Your task to perform on an android device: Open wifi settings Image 0: 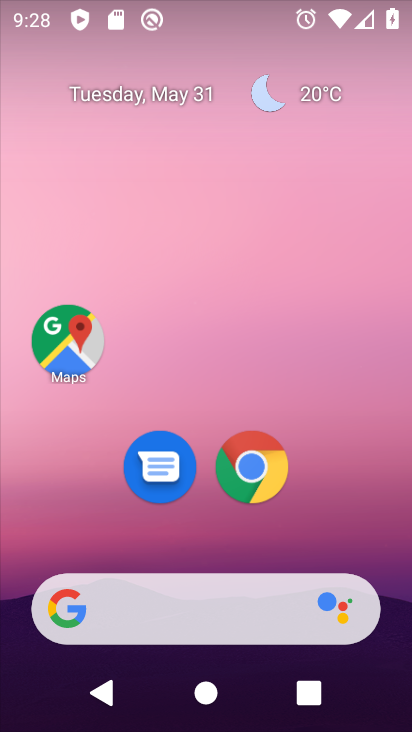
Step 0: click (234, 179)
Your task to perform on an android device: Open wifi settings Image 1: 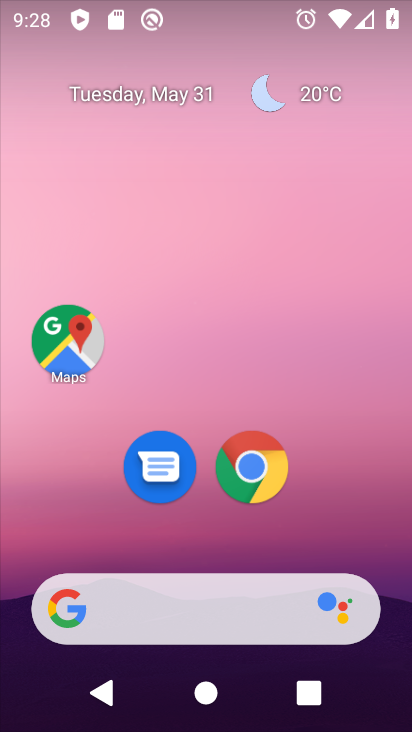
Step 1: click (238, 232)
Your task to perform on an android device: Open wifi settings Image 2: 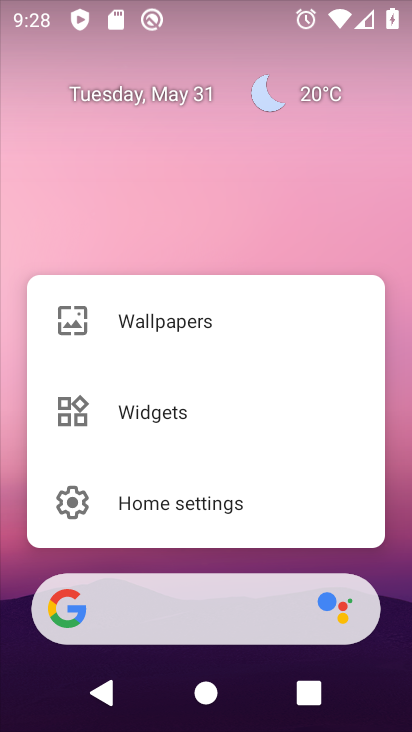
Step 2: click (239, 160)
Your task to perform on an android device: Open wifi settings Image 3: 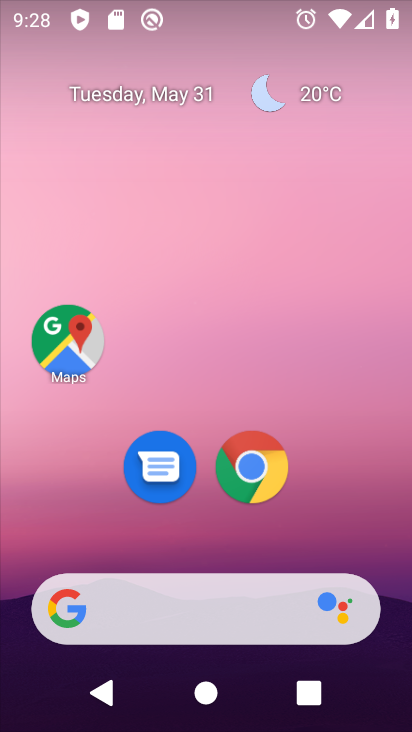
Step 3: press home button
Your task to perform on an android device: Open wifi settings Image 4: 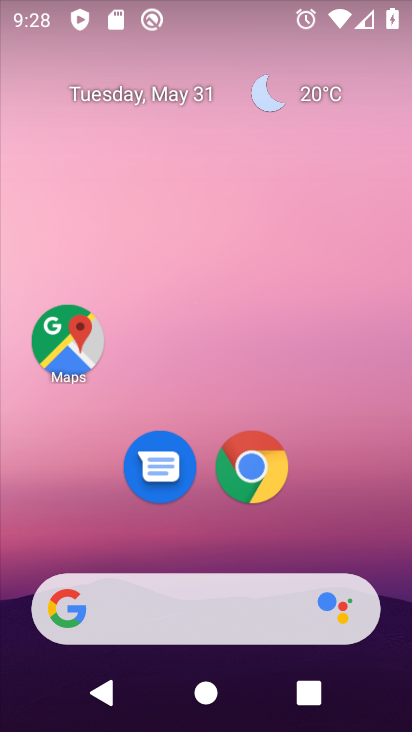
Step 4: click (213, 167)
Your task to perform on an android device: Open wifi settings Image 5: 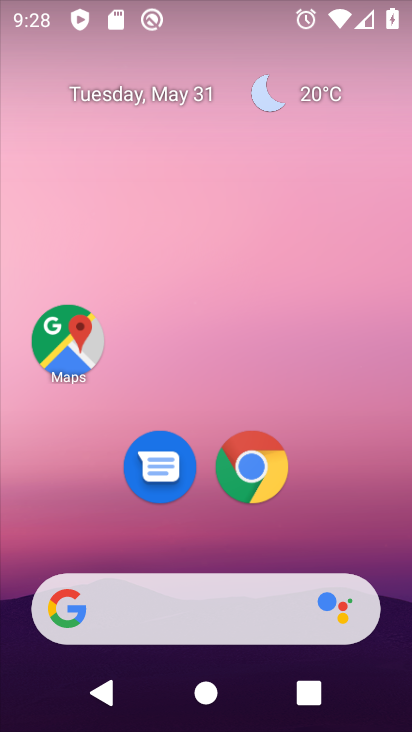
Step 5: drag from (213, 530) to (258, 159)
Your task to perform on an android device: Open wifi settings Image 6: 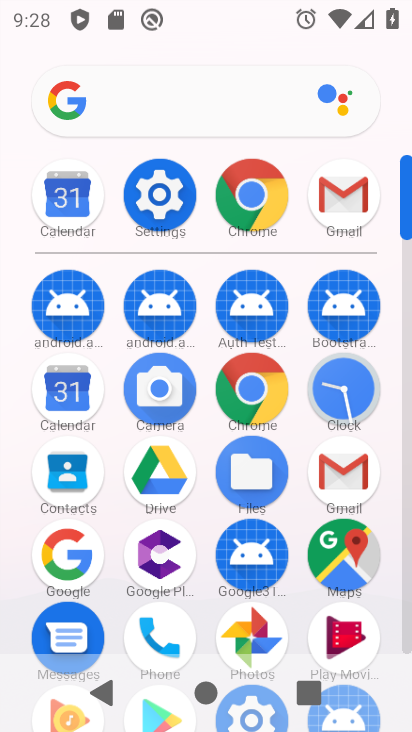
Step 6: click (173, 198)
Your task to perform on an android device: Open wifi settings Image 7: 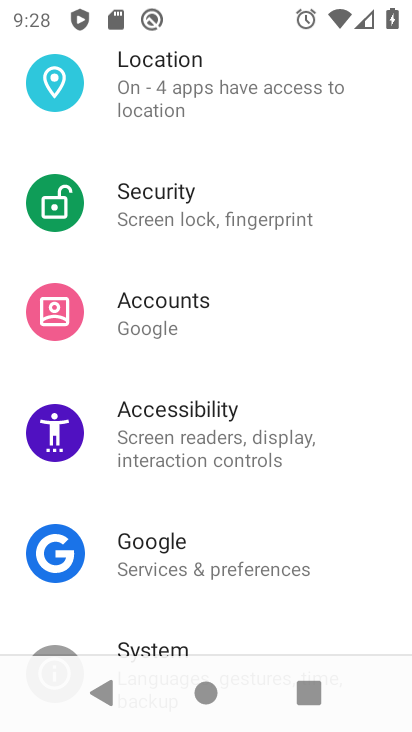
Step 7: drag from (210, 191) to (306, 648)
Your task to perform on an android device: Open wifi settings Image 8: 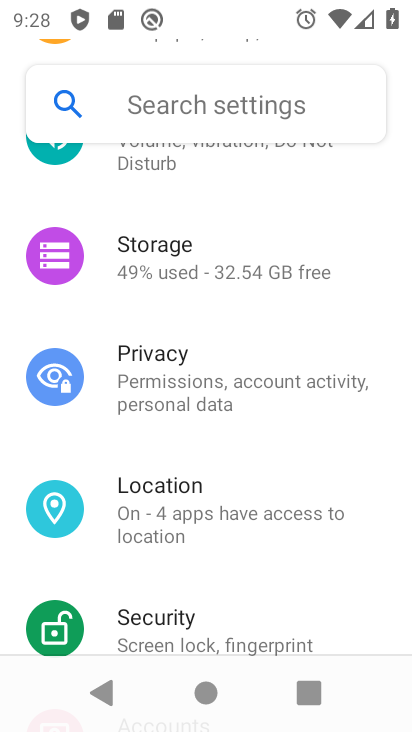
Step 8: drag from (231, 255) to (304, 722)
Your task to perform on an android device: Open wifi settings Image 9: 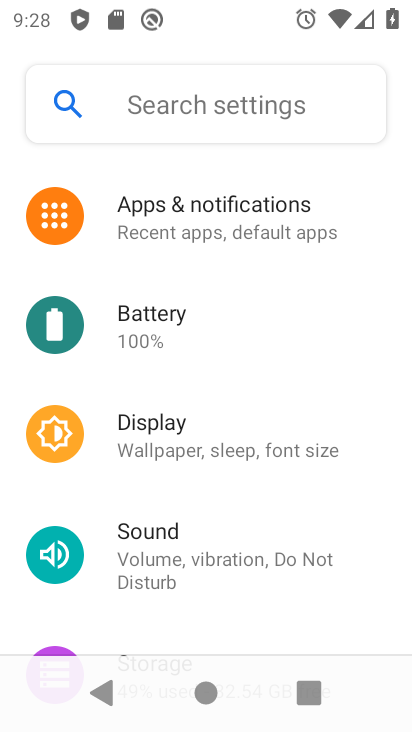
Step 9: drag from (198, 229) to (232, 591)
Your task to perform on an android device: Open wifi settings Image 10: 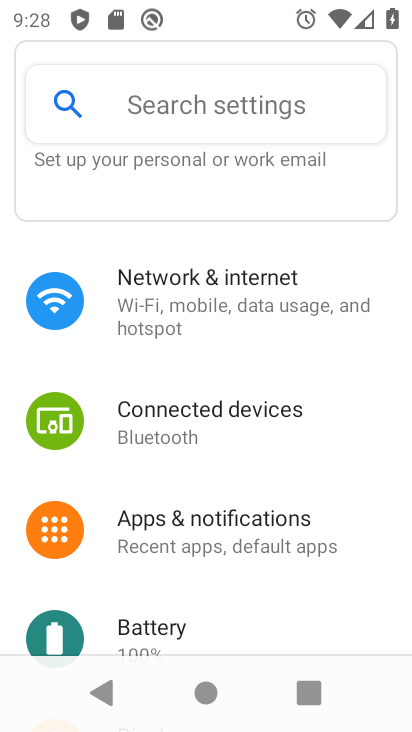
Step 10: click (196, 292)
Your task to perform on an android device: Open wifi settings Image 11: 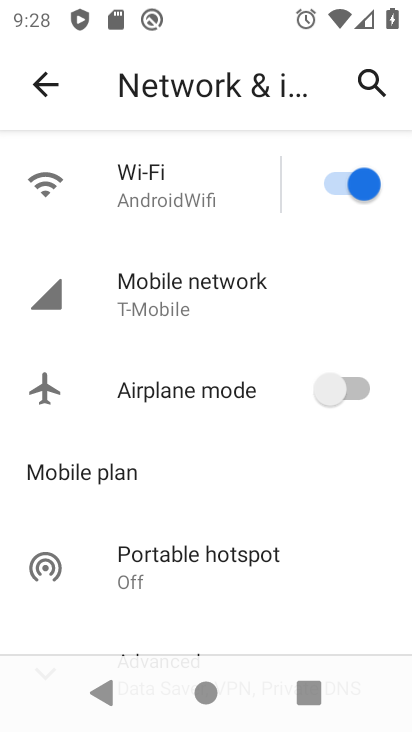
Step 11: click (210, 181)
Your task to perform on an android device: Open wifi settings Image 12: 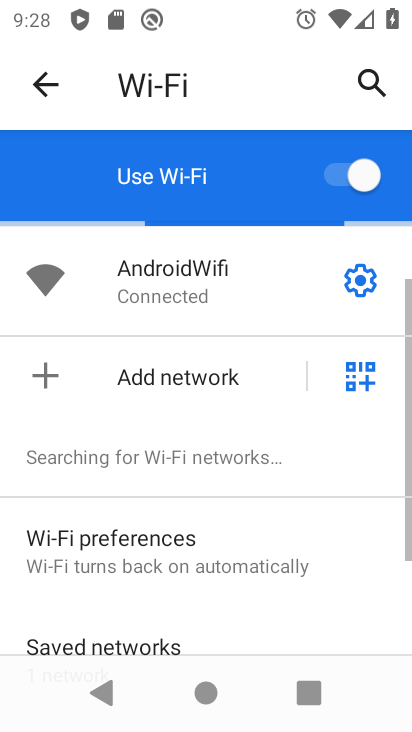
Step 12: click (351, 286)
Your task to perform on an android device: Open wifi settings Image 13: 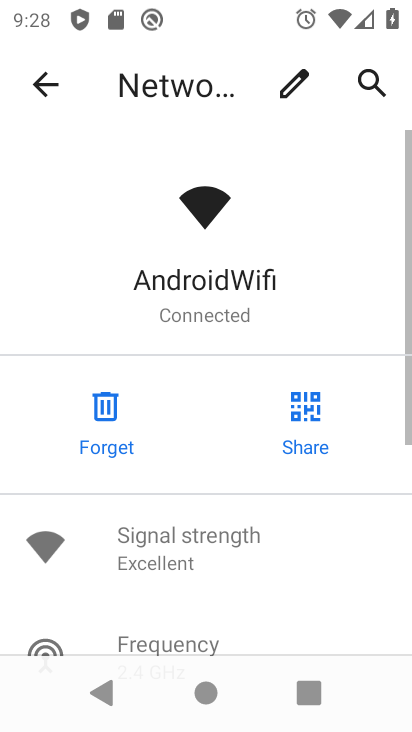
Step 13: task complete